Your task to perform on an android device: Open eBay Image 0: 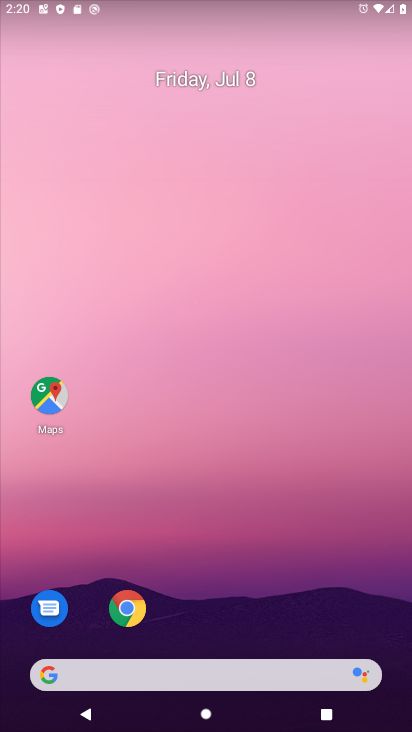
Step 0: drag from (181, 644) to (134, 63)
Your task to perform on an android device: Open eBay Image 1: 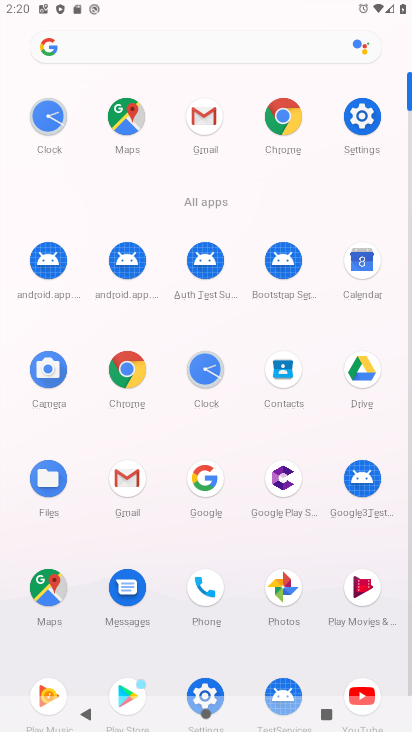
Step 1: click (289, 98)
Your task to perform on an android device: Open eBay Image 2: 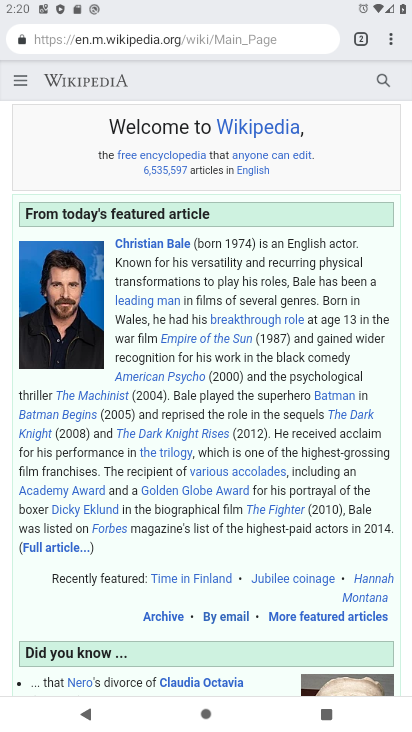
Step 2: click (365, 36)
Your task to perform on an android device: Open eBay Image 3: 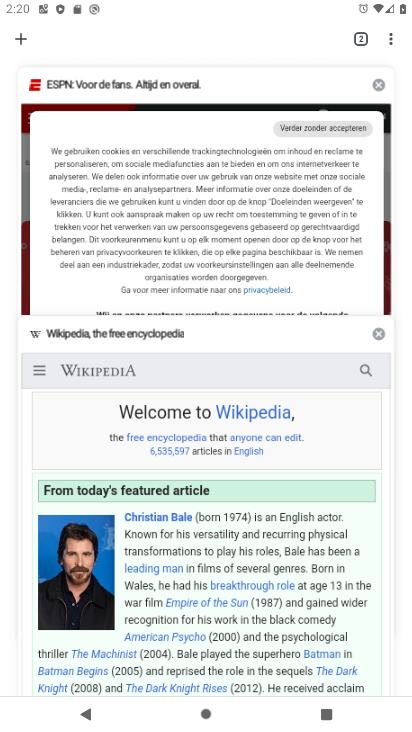
Step 3: click (360, 39)
Your task to perform on an android device: Open eBay Image 4: 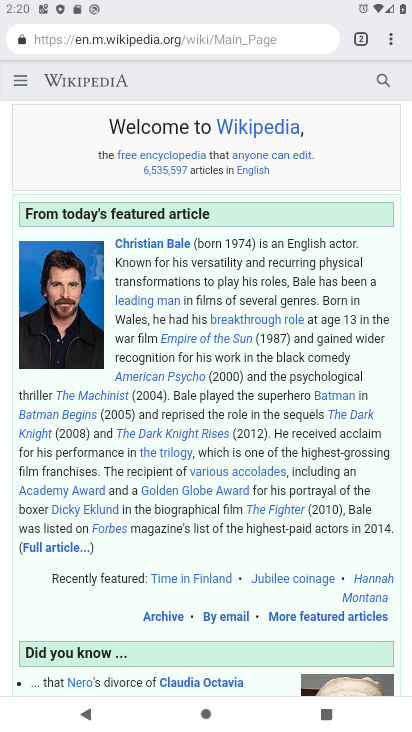
Step 4: click (366, 43)
Your task to perform on an android device: Open eBay Image 5: 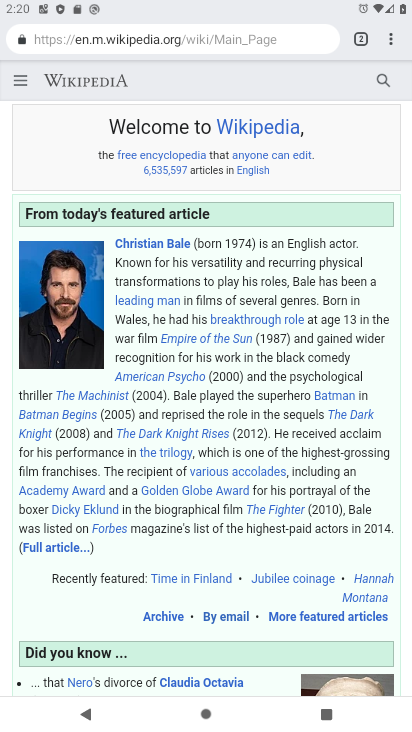
Step 5: click (358, 40)
Your task to perform on an android device: Open eBay Image 6: 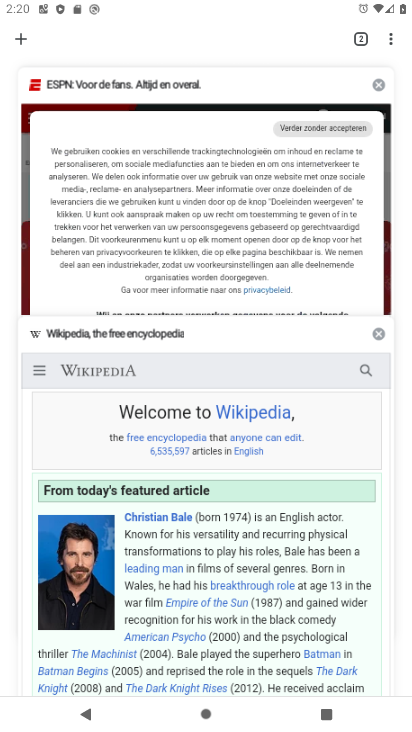
Step 6: click (21, 37)
Your task to perform on an android device: Open eBay Image 7: 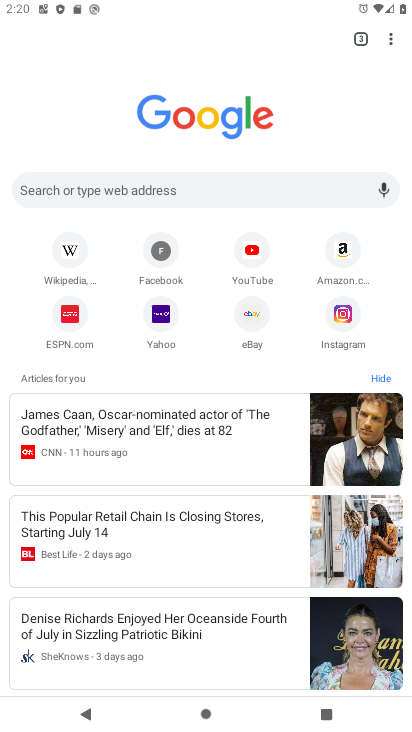
Step 7: click (250, 319)
Your task to perform on an android device: Open eBay Image 8: 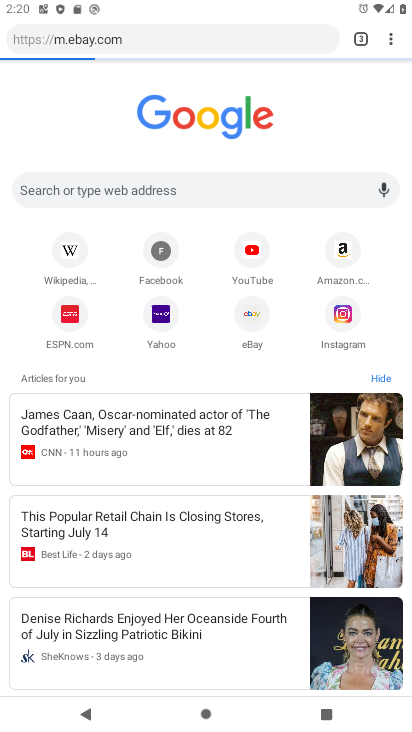
Step 8: task complete